Your task to perform on an android device: turn off translation in the chrome app Image 0: 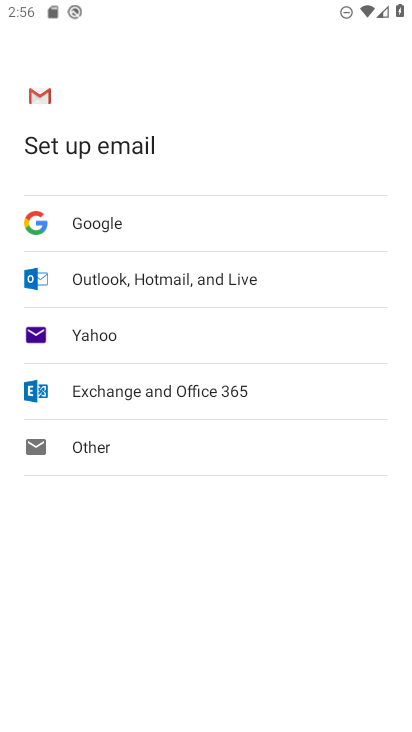
Step 0: press home button
Your task to perform on an android device: turn off translation in the chrome app Image 1: 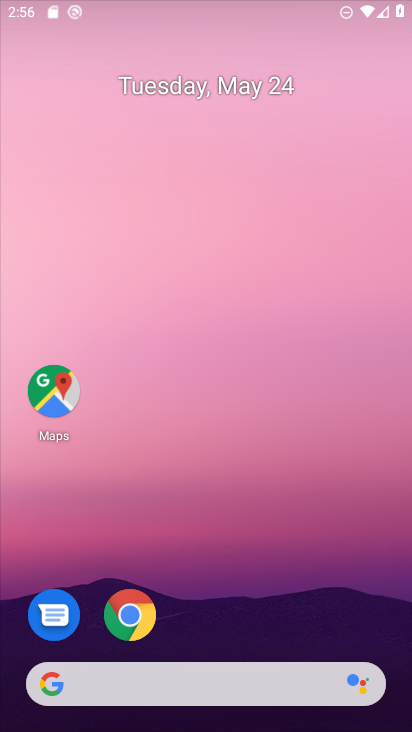
Step 1: drag from (211, 689) to (330, 50)
Your task to perform on an android device: turn off translation in the chrome app Image 2: 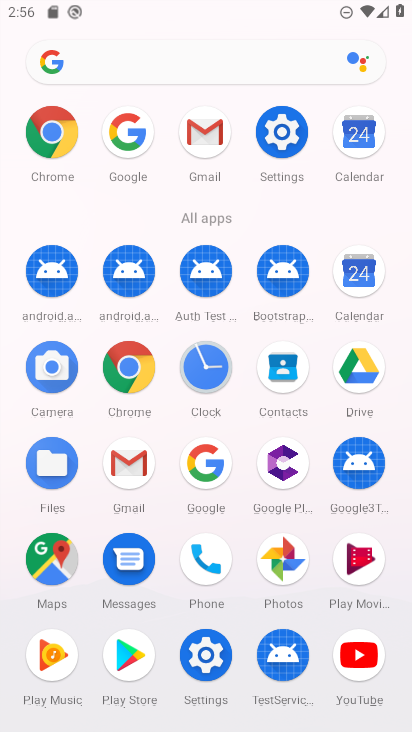
Step 2: click (57, 140)
Your task to perform on an android device: turn off translation in the chrome app Image 3: 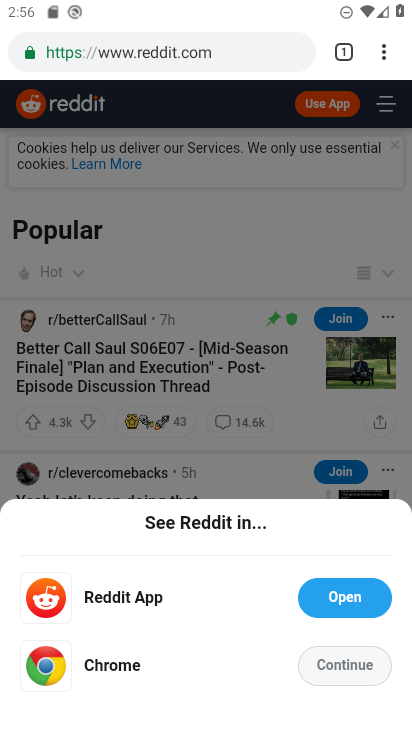
Step 3: click (385, 61)
Your task to perform on an android device: turn off translation in the chrome app Image 4: 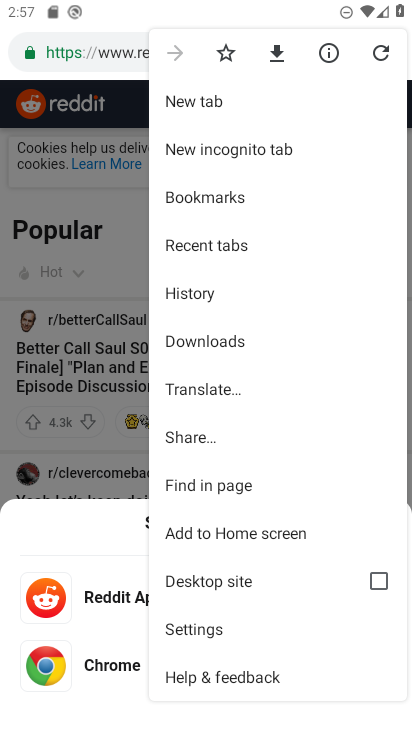
Step 4: drag from (237, 577) to (261, 360)
Your task to perform on an android device: turn off translation in the chrome app Image 5: 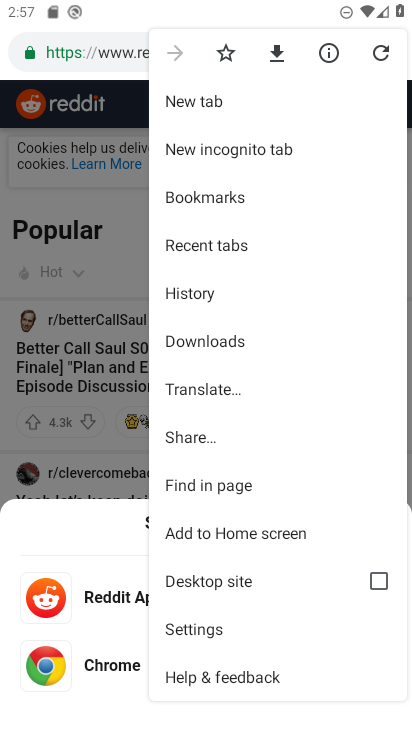
Step 5: click (230, 390)
Your task to perform on an android device: turn off translation in the chrome app Image 6: 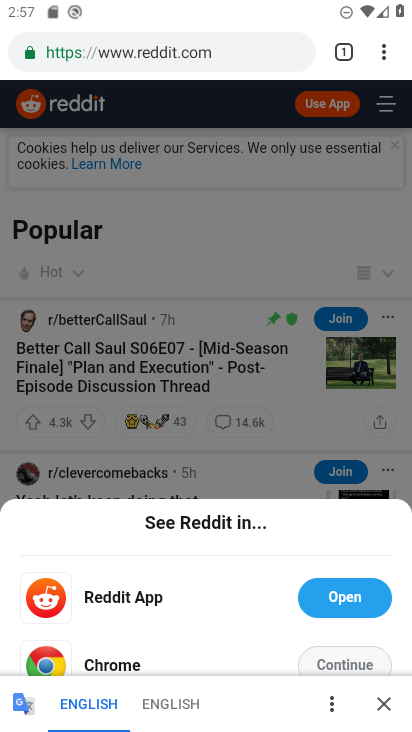
Step 6: click (400, 717)
Your task to perform on an android device: turn off translation in the chrome app Image 7: 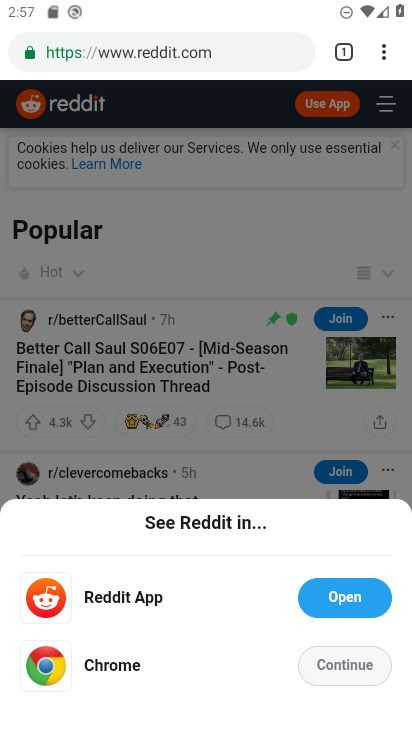
Step 7: click (366, 670)
Your task to perform on an android device: turn off translation in the chrome app Image 8: 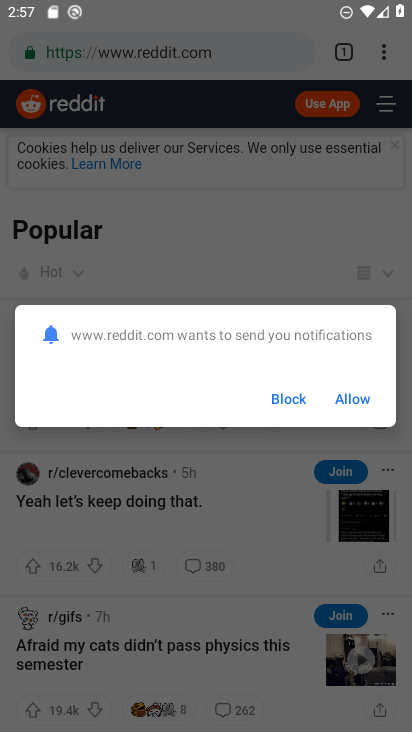
Step 8: click (297, 398)
Your task to perform on an android device: turn off translation in the chrome app Image 9: 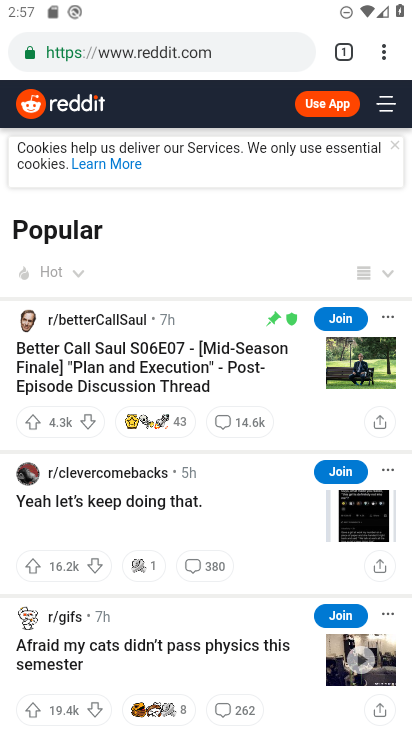
Step 9: click (384, 59)
Your task to perform on an android device: turn off translation in the chrome app Image 10: 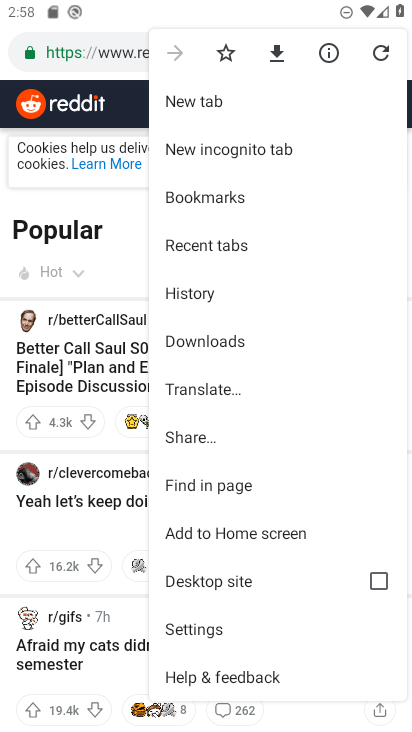
Step 10: drag from (263, 586) to (308, 218)
Your task to perform on an android device: turn off translation in the chrome app Image 11: 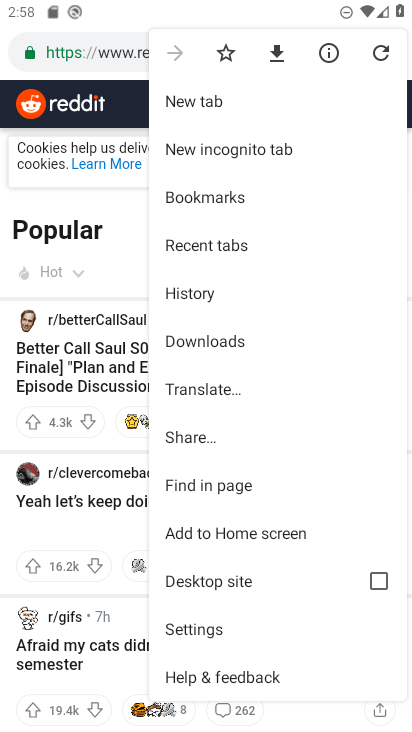
Step 11: click (208, 629)
Your task to perform on an android device: turn off translation in the chrome app Image 12: 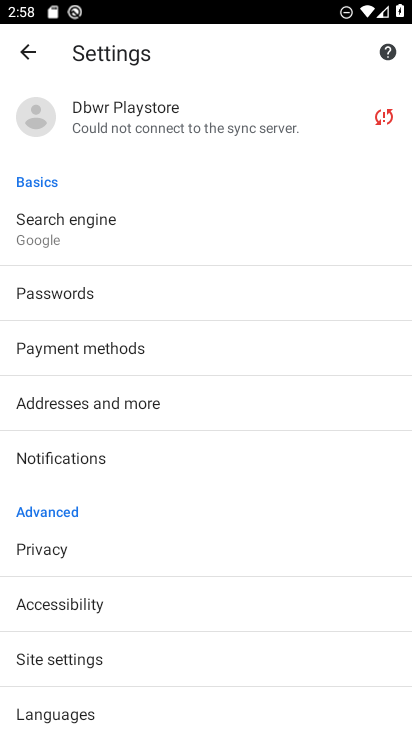
Step 12: drag from (181, 561) to (225, 254)
Your task to perform on an android device: turn off translation in the chrome app Image 13: 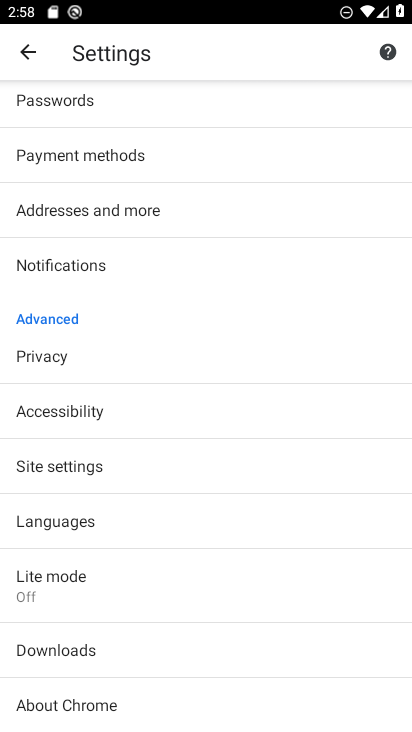
Step 13: drag from (131, 499) to (172, 175)
Your task to perform on an android device: turn off translation in the chrome app Image 14: 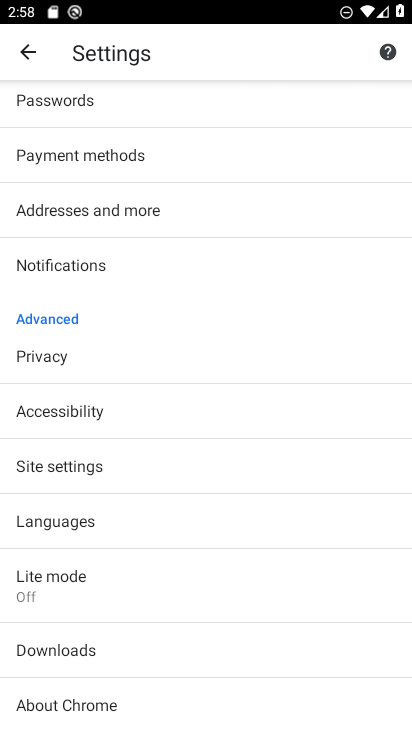
Step 14: drag from (106, 526) to (153, 279)
Your task to perform on an android device: turn off translation in the chrome app Image 15: 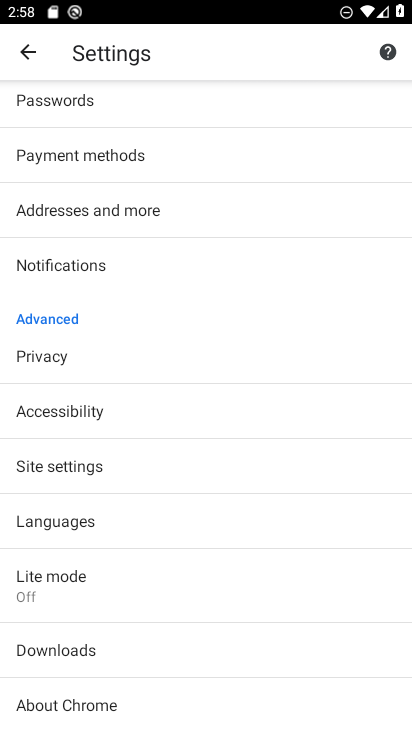
Step 15: drag from (178, 263) to (189, 620)
Your task to perform on an android device: turn off translation in the chrome app Image 16: 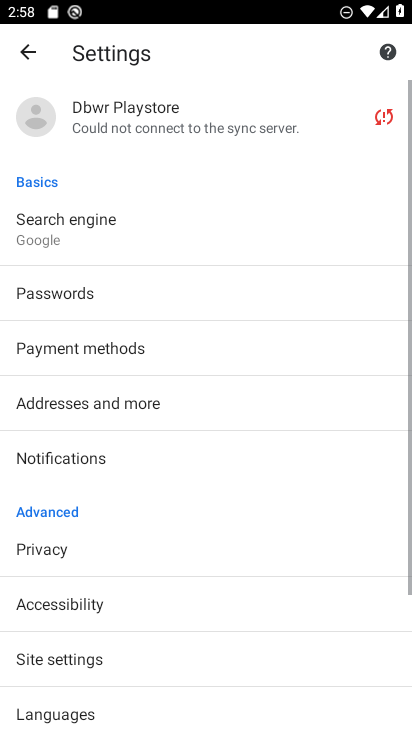
Step 16: drag from (164, 567) to (247, 149)
Your task to perform on an android device: turn off translation in the chrome app Image 17: 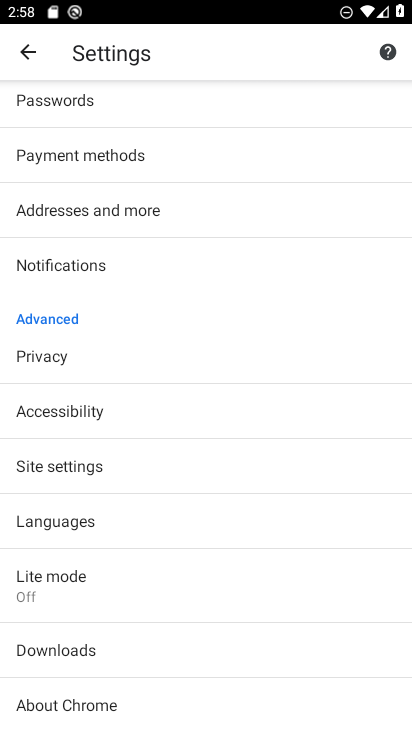
Step 17: click (29, 54)
Your task to perform on an android device: turn off translation in the chrome app Image 18: 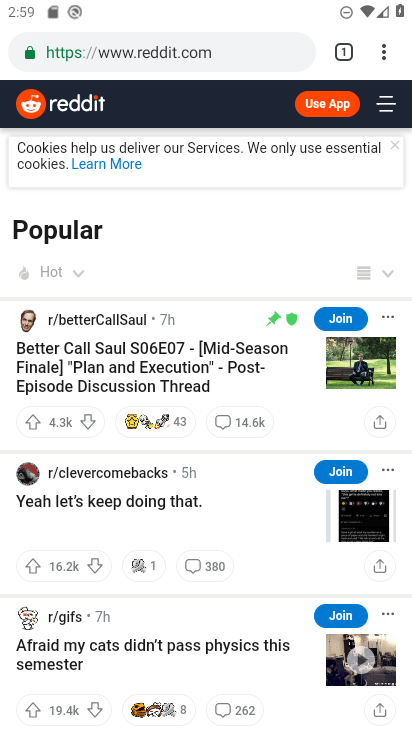
Step 18: click (392, 51)
Your task to perform on an android device: turn off translation in the chrome app Image 19: 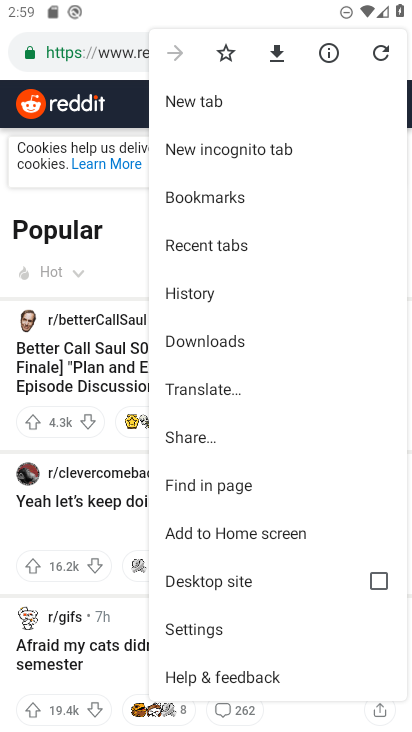
Step 19: click (217, 398)
Your task to perform on an android device: turn off translation in the chrome app Image 20: 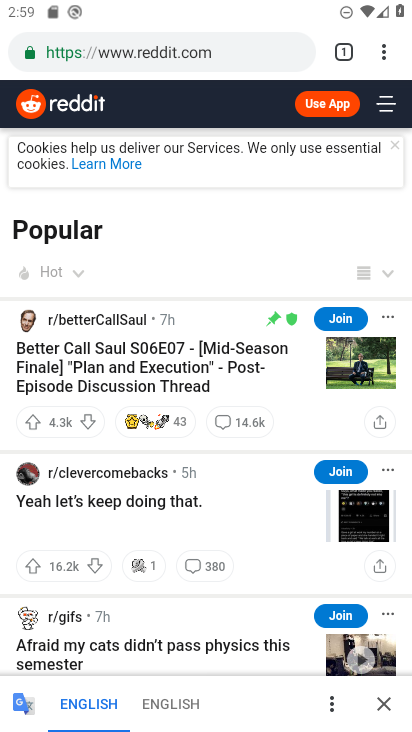
Step 20: click (333, 705)
Your task to perform on an android device: turn off translation in the chrome app Image 21: 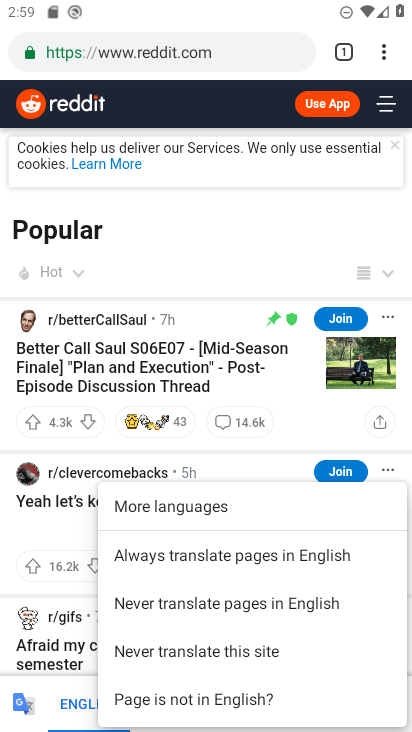
Step 21: click (225, 643)
Your task to perform on an android device: turn off translation in the chrome app Image 22: 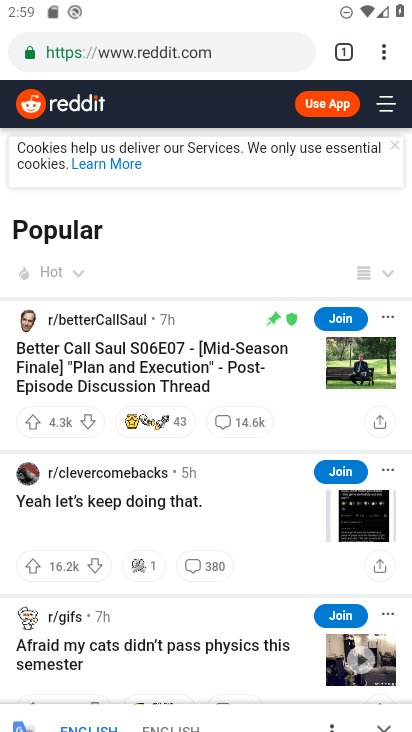
Step 22: task complete